Your task to perform on an android device: change your default location settings in chrome Image 0: 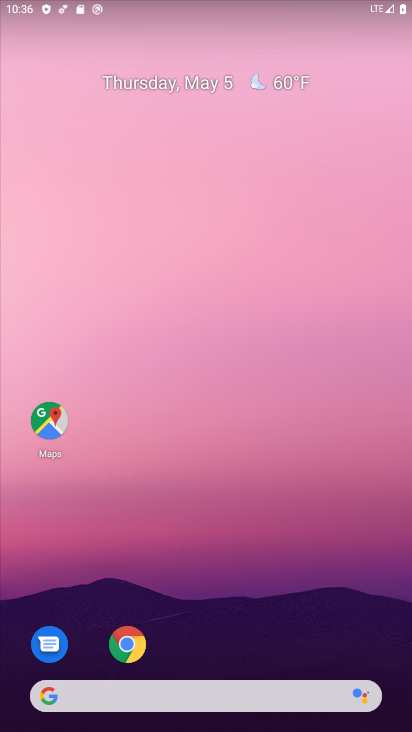
Step 0: drag from (369, 621) to (340, 62)
Your task to perform on an android device: change your default location settings in chrome Image 1: 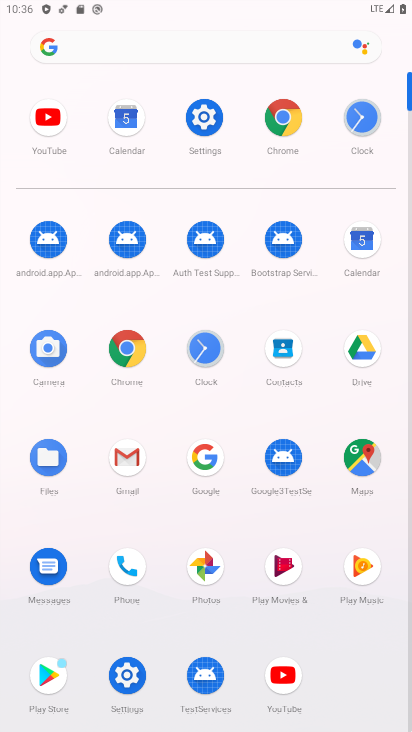
Step 1: click (129, 362)
Your task to perform on an android device: change your default location settings in chrome Image 2: 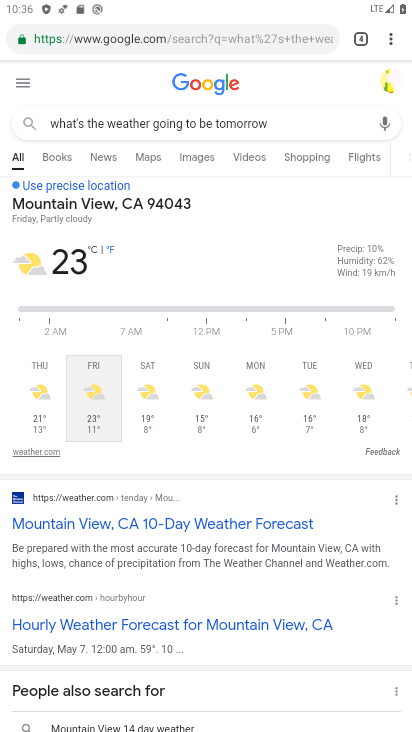
Step 2: click (206, 39)
Your task to perform on an android device: change your default location settings in chrome Image 3: 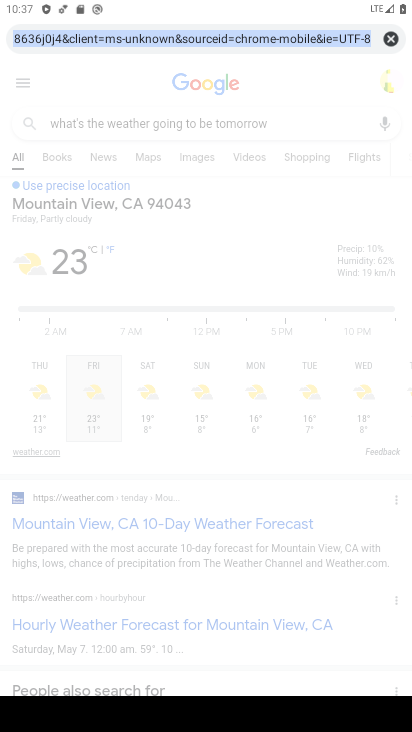
Step 3: click (95, 94)
Your task to perform on an android device: change your default location settings in chrome Image 4: 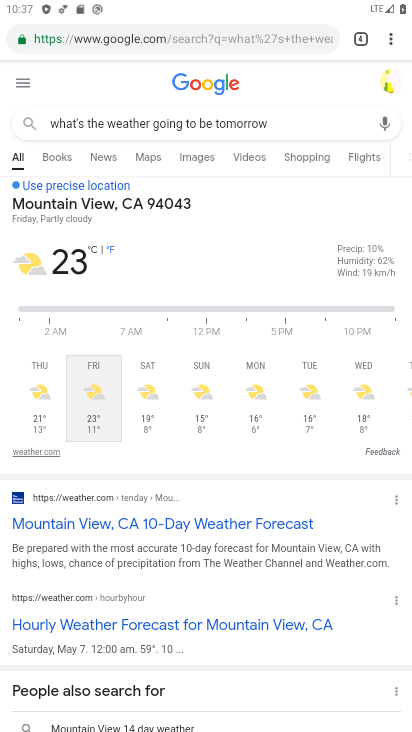
Step 4: click (390, 35)
Your task to perform on an android device: change your default location settings in chrome Image 5: 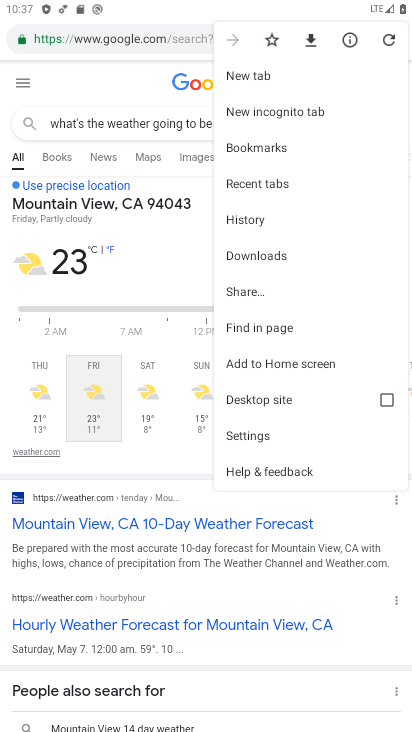
Step 5: click (259, 432)
Your task to perform on an android device: change your default location settings in chrome Image 6: 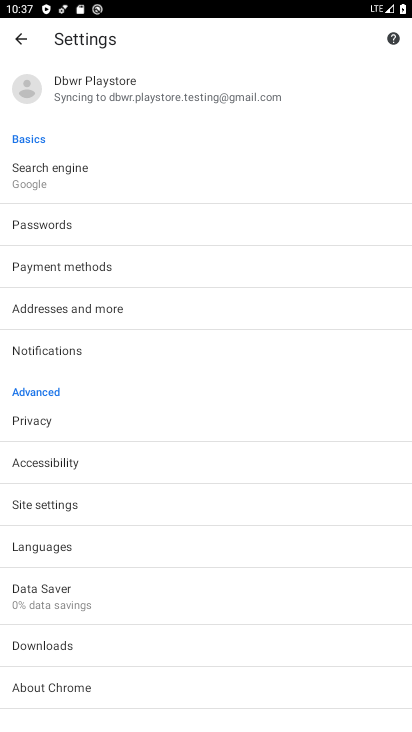
Step 6: click (78, 501)
Your task to perform on an android device: change your default location settings in chrome Image 7: 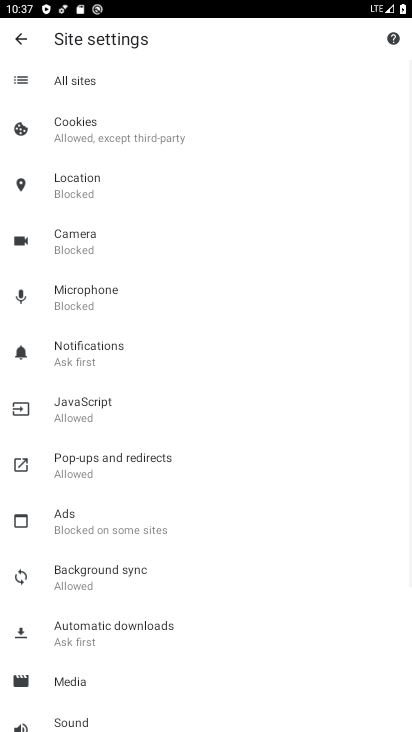
Step 7: click (92, 184)
Your task to perform on an android device: change your default location settings in chrome Image 8: 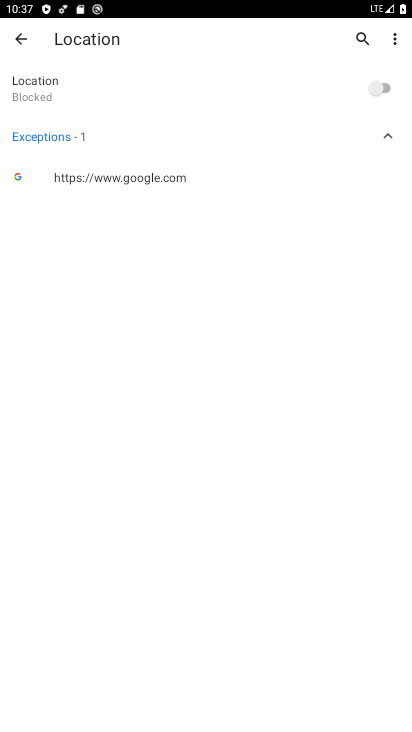
Step 8: task complete